Your task to perform on an android device: set the timer Image 0: 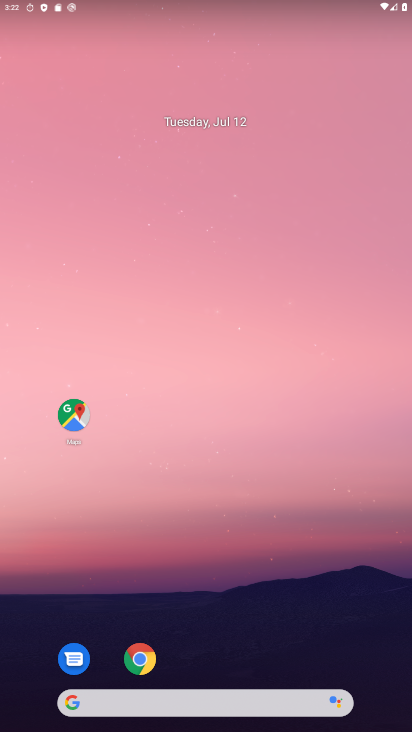
Step 0: drag from (288, 638) to (241, 206)
Your task to perform on an android device: set the timer Image 1: 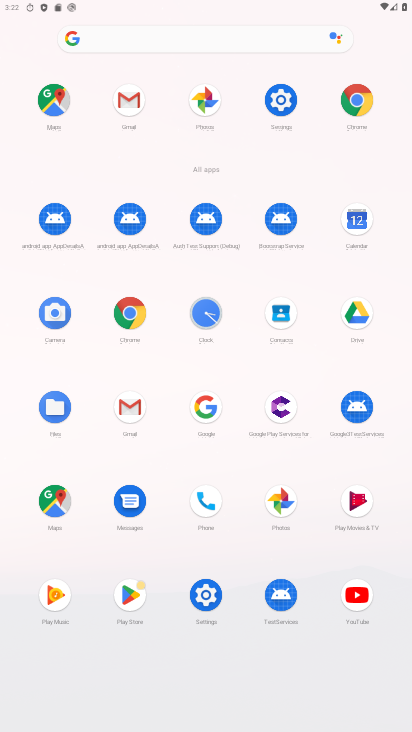
Step 1: click (208, 313)
Your task to perform on an android device: set the timer Image 2: 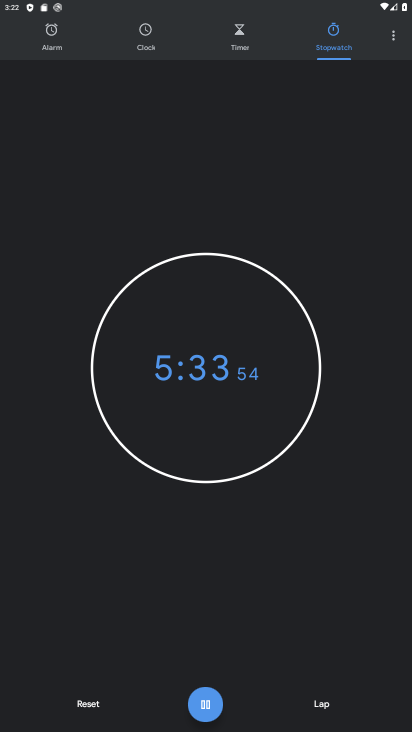
Step 2: click (244, 37)
Your task to perform on an android device: set the timer Image 3: 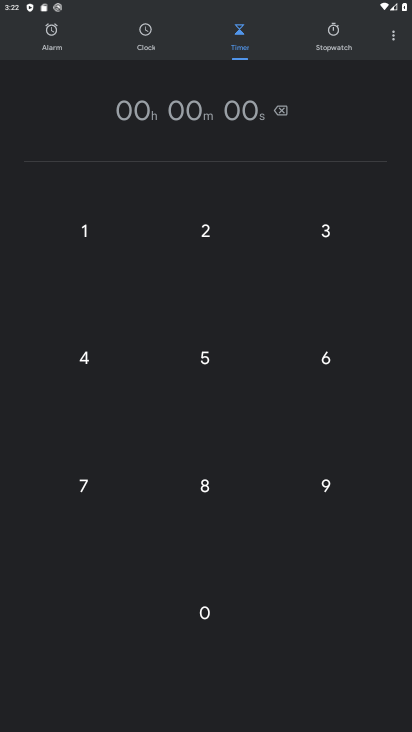
Step 3: type "100000"
Your task to perform on an android device: set the timer Image 4: 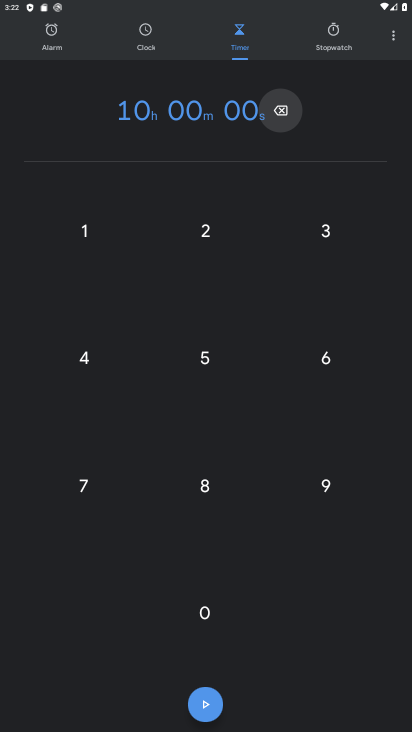
Step 4: click (210, 696)
Your task to perform on an android device: set the timer Image 5: 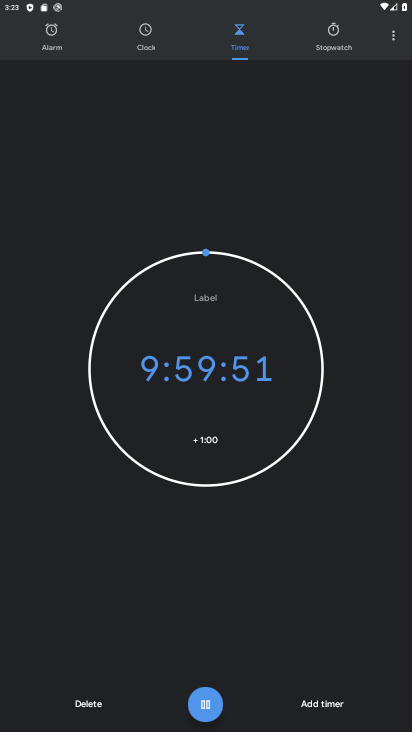
Step 5: task complete